Your task to perform on an android device: turn on wifi Image 0: 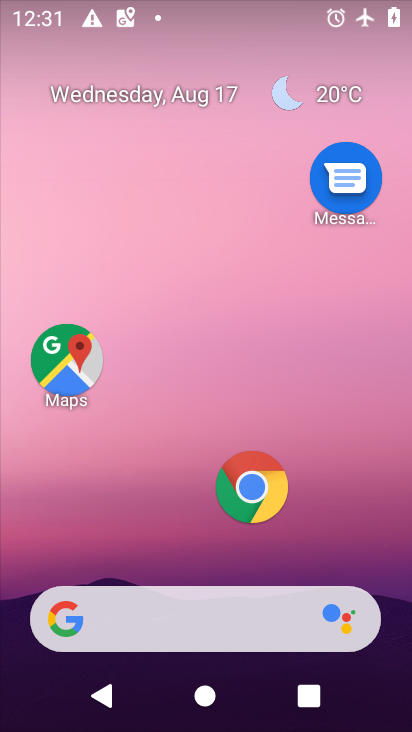
Step 0: drag from (296, 20) to (268, 604)
Your task to perform on an android device: turn on wifi Image 1: 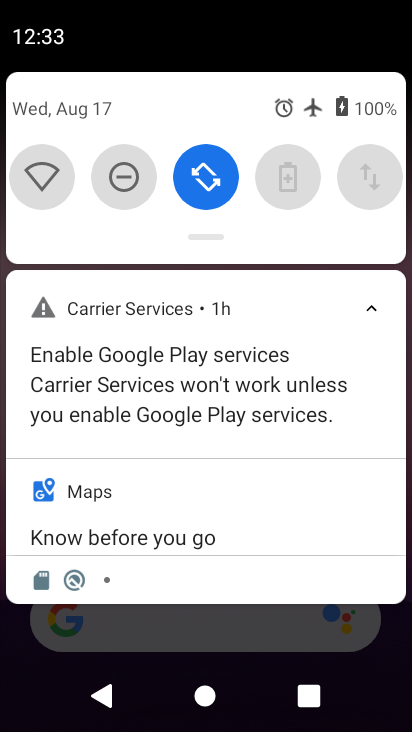
Step 1: click (60, 180)
Your task to perform on an android device: turn on wifi Image 2: 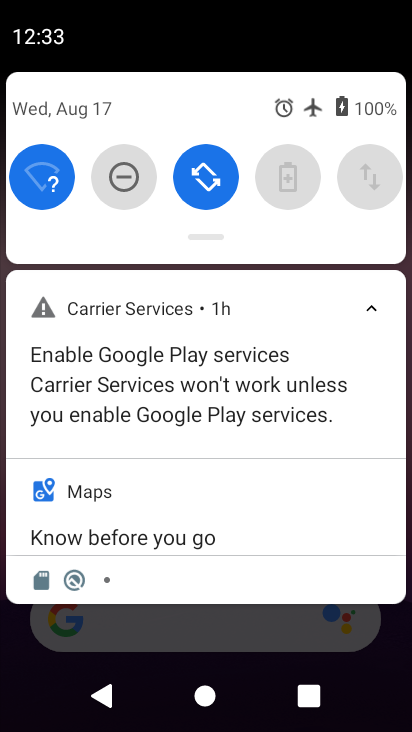
Step 2: task complete